Your task to perform on an android device: change keyboard looks Image 0: 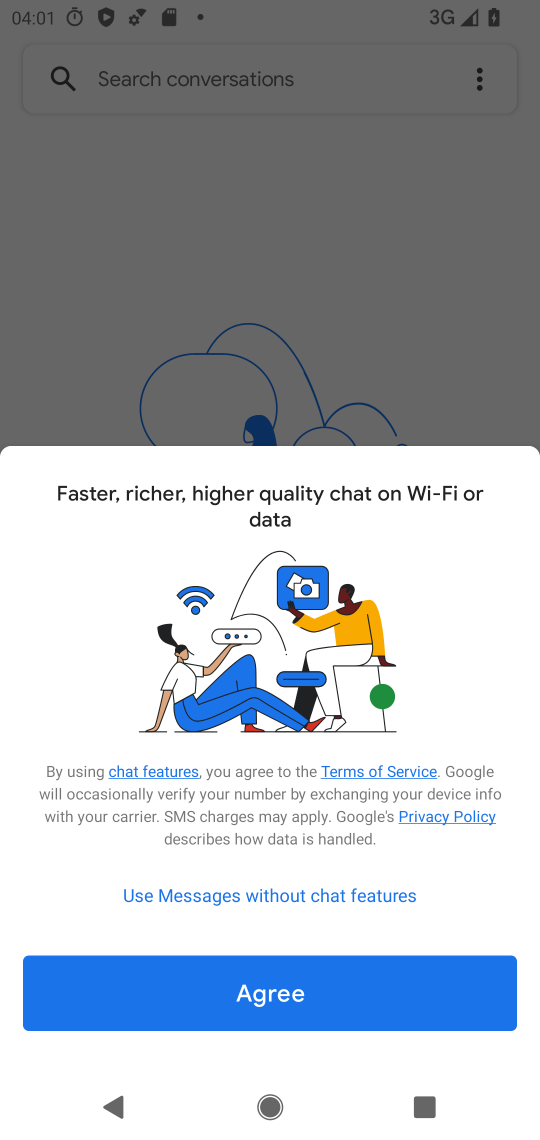
Step 0: press home button
Your task to perform on an android device: change keyboard looks Image 1: 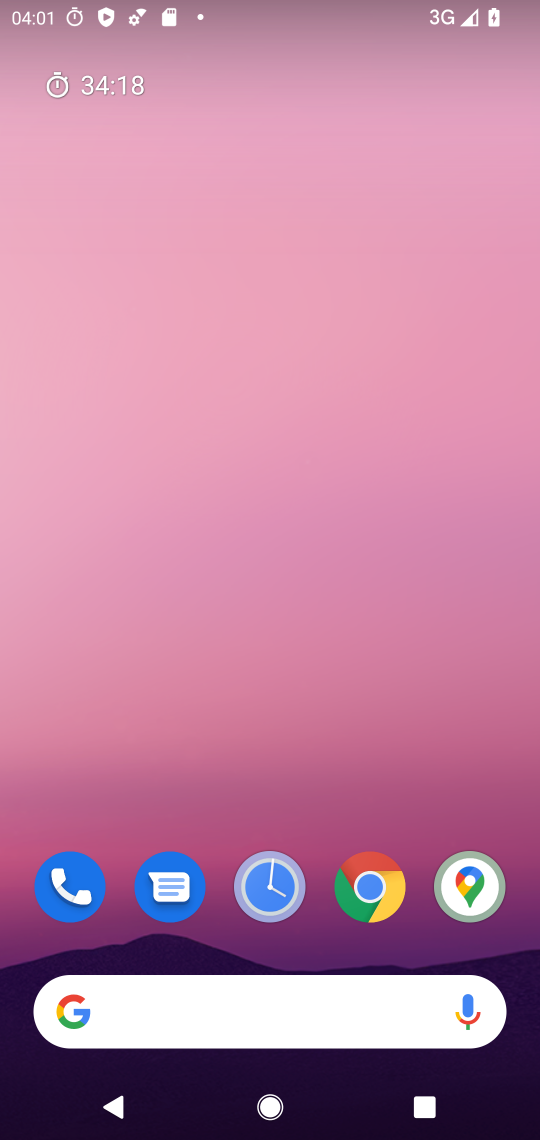
Step 1: drag from (434, 727) to (448, 420)
Your task to perform on an android device: change keyboard looks Image 2: 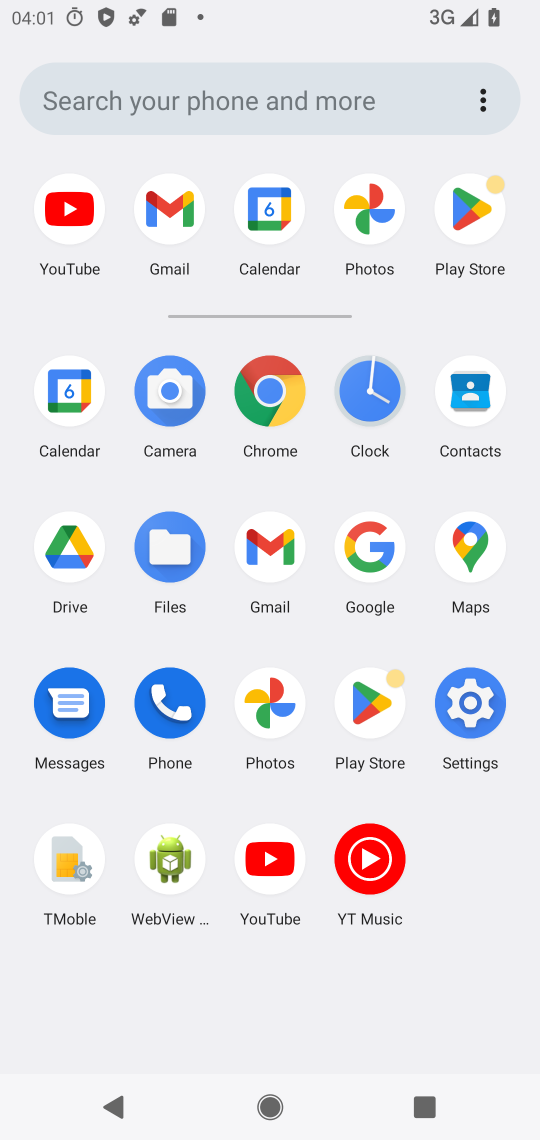
Step 2: click (461, 718)
Your task to perform on an android device: change keyboard looks Image 3: 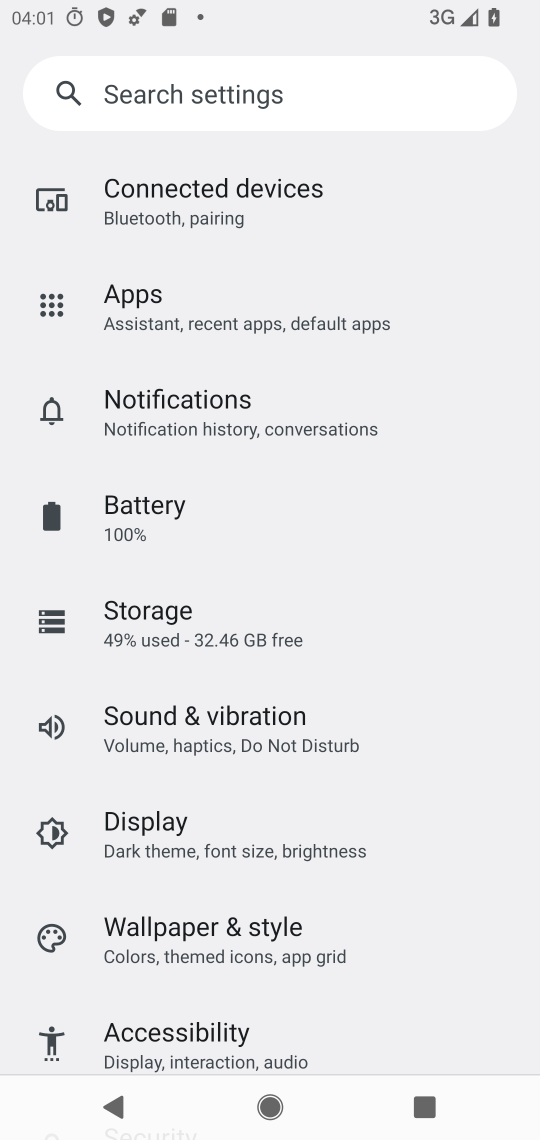
Step 3: drag from (466, 836) to (476, 713)
Your task to perform on an android device: change keyboard looks Image 4: 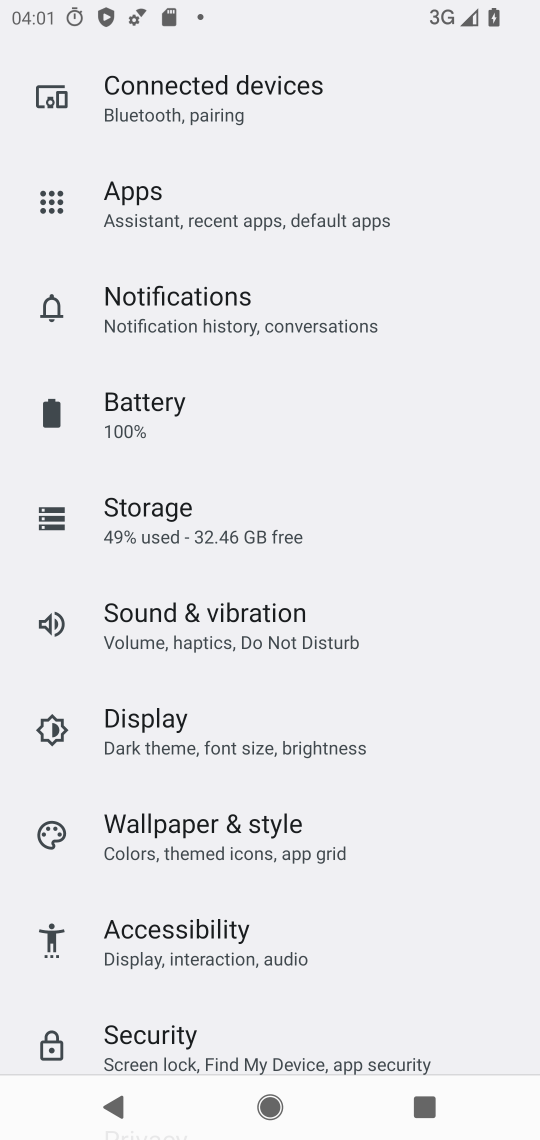
Step 4: drag from (432, 902) to (450, 721)
Your task to perform on an android device: change keyboard looks Image 5: 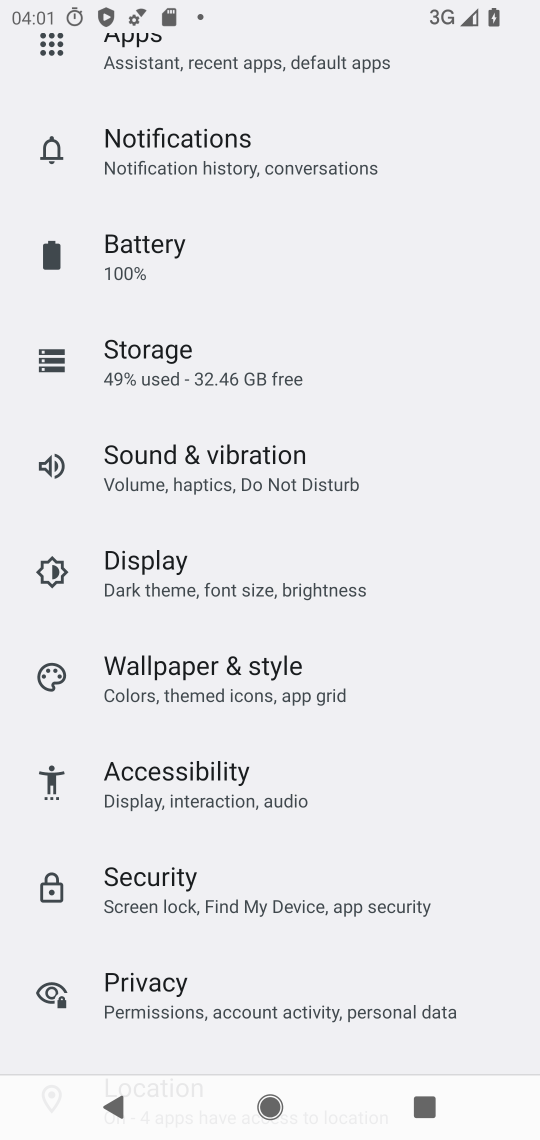
Step 5: drag from (435, 891) to (460, 742)
Your task to perform on an android device: change keyboard looks Image 6: 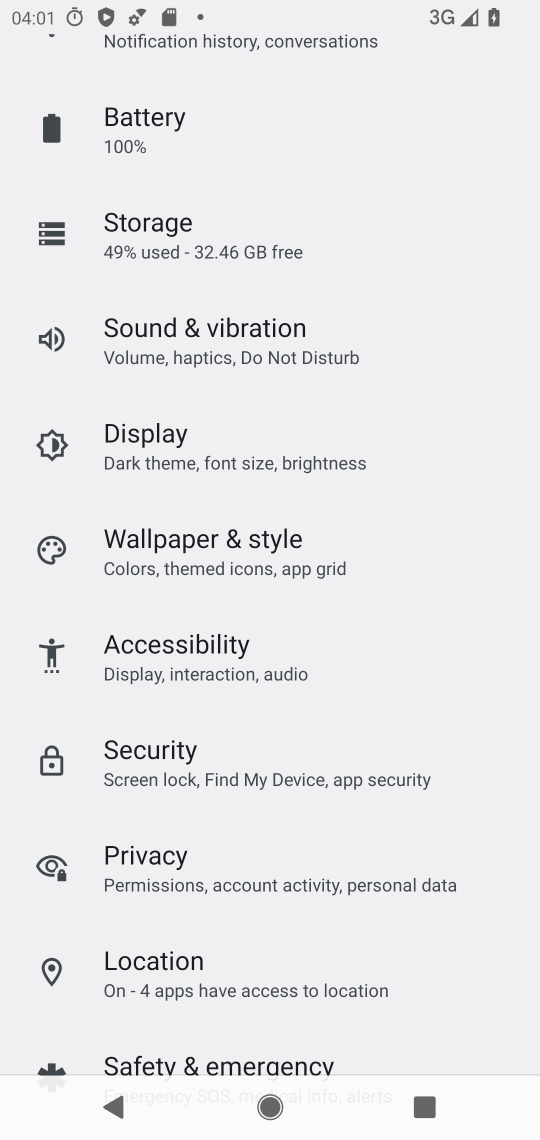
Step 6: drag from (441, 954) to (454, 731)
Your task to perform on an android device: change keyboard looks Image 7: 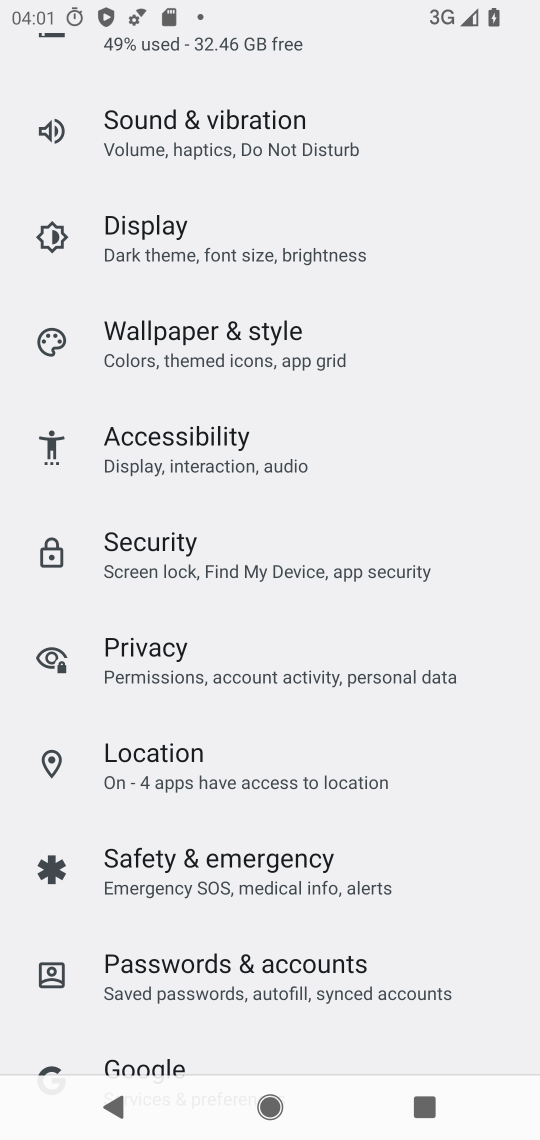
Step 7: drag from (432, 822) to (460, 686)
Your task to perform on an android device: change keyboard looks Image 8: 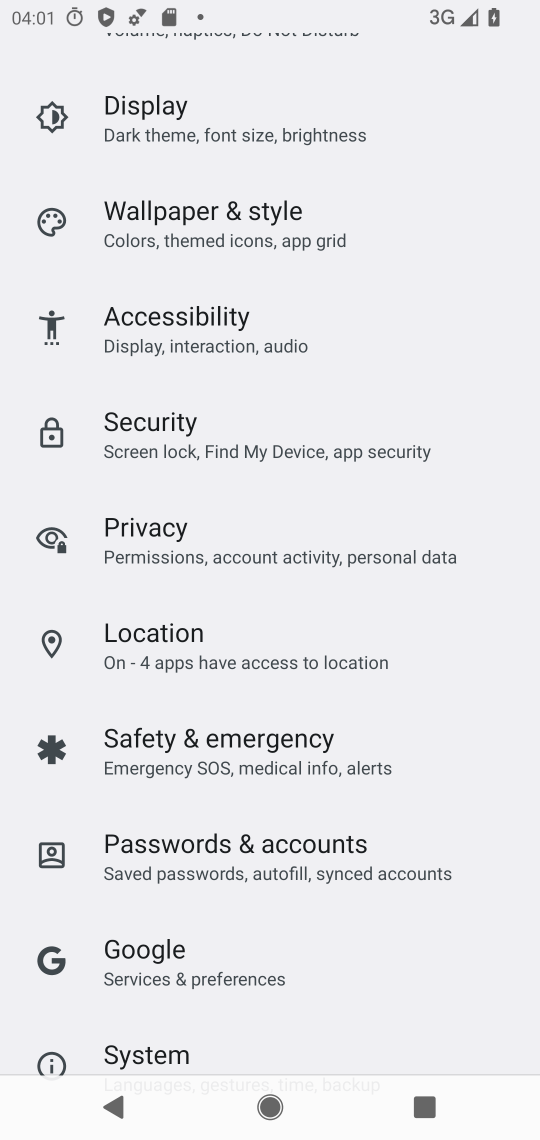
Step 8: drag from (471, 917) to (481, 715)
Your task to perform on an android device: change keyboard looks Image 9: 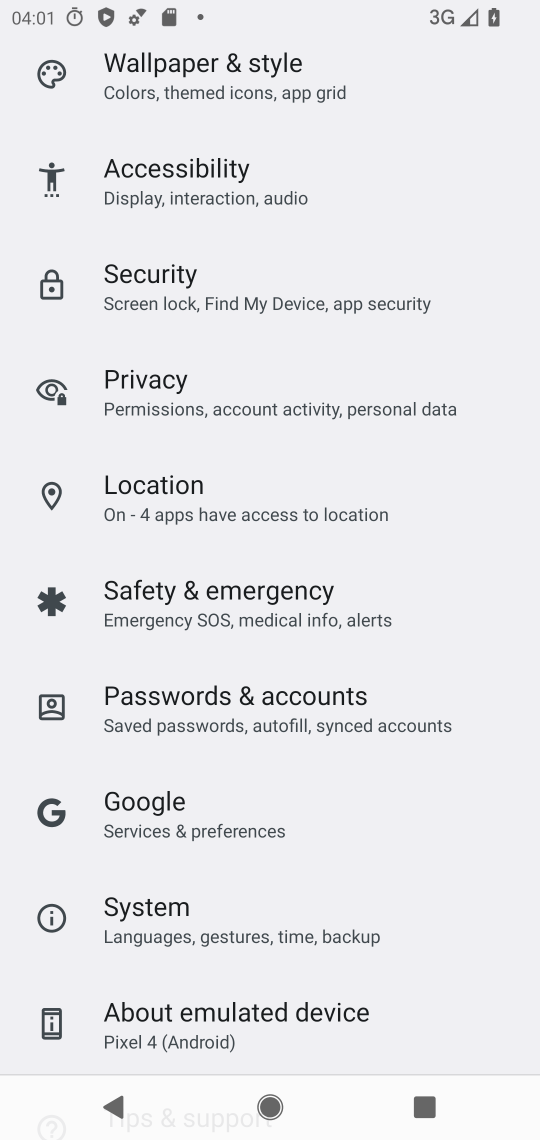
Step 9: drag from (457, 912) to (462, 754)
Your task to perform on an android device: change keyboard looks Image 10: 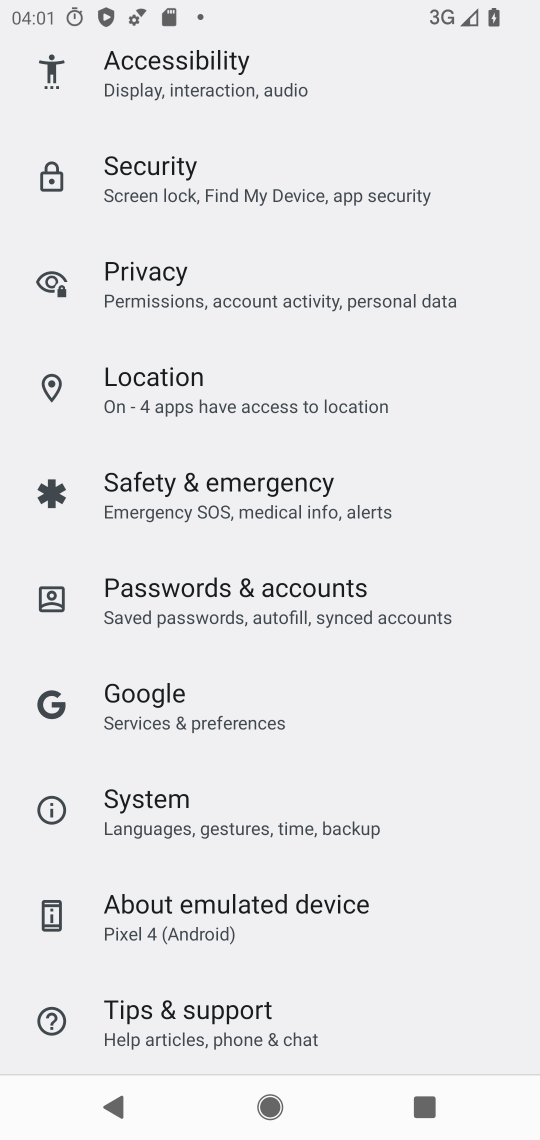
Step 10: click (438, 797)
Your task to perform on an android device: change keyboard looks Image 11: 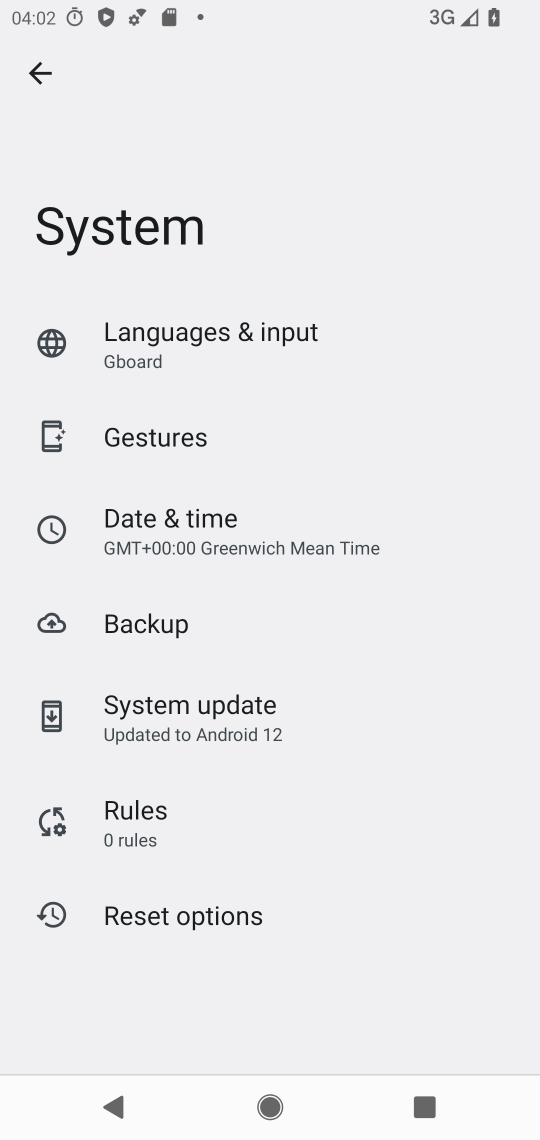
Step 11: click (226, 355)
Your task to perform on an android device: change keyboard looks Image 12: 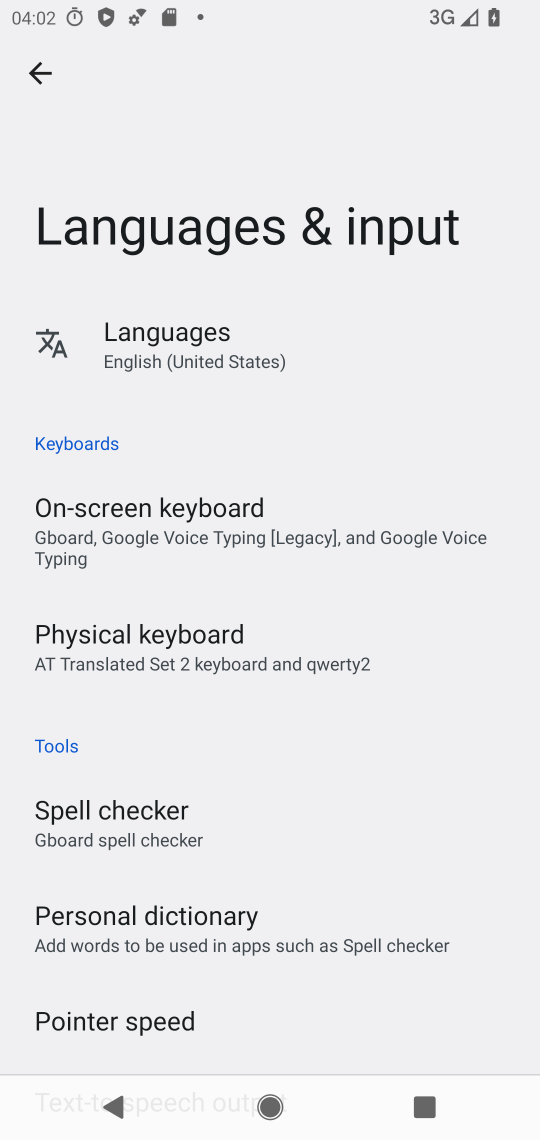
Step 12: click (227, 530)
Your task to perform on an android device: change keyboard looks Image 13: 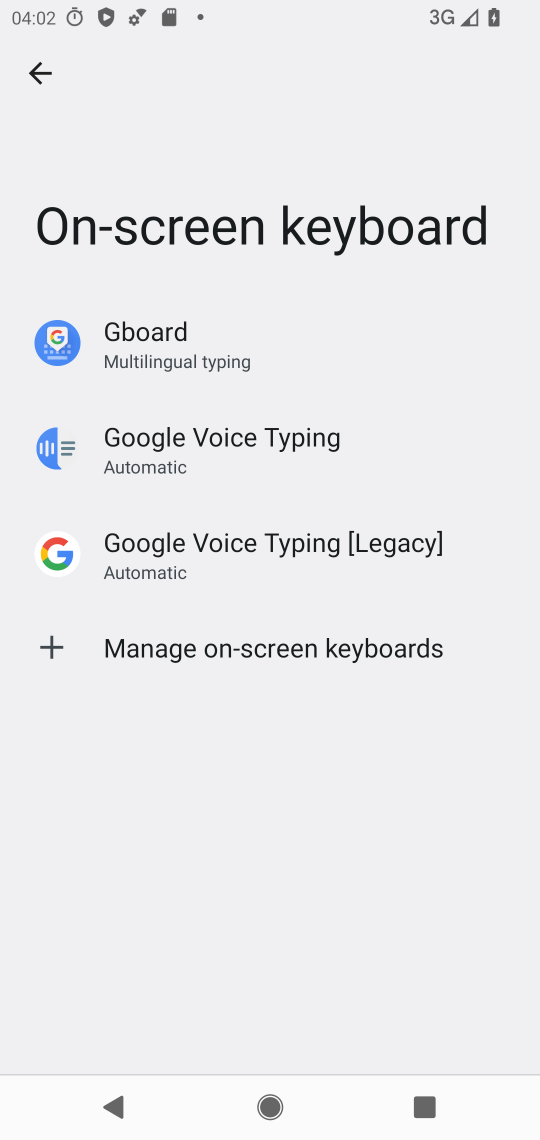
Step 13: click (262, 351)
Your task to perform on an android device: change keyboard looks Image 14: 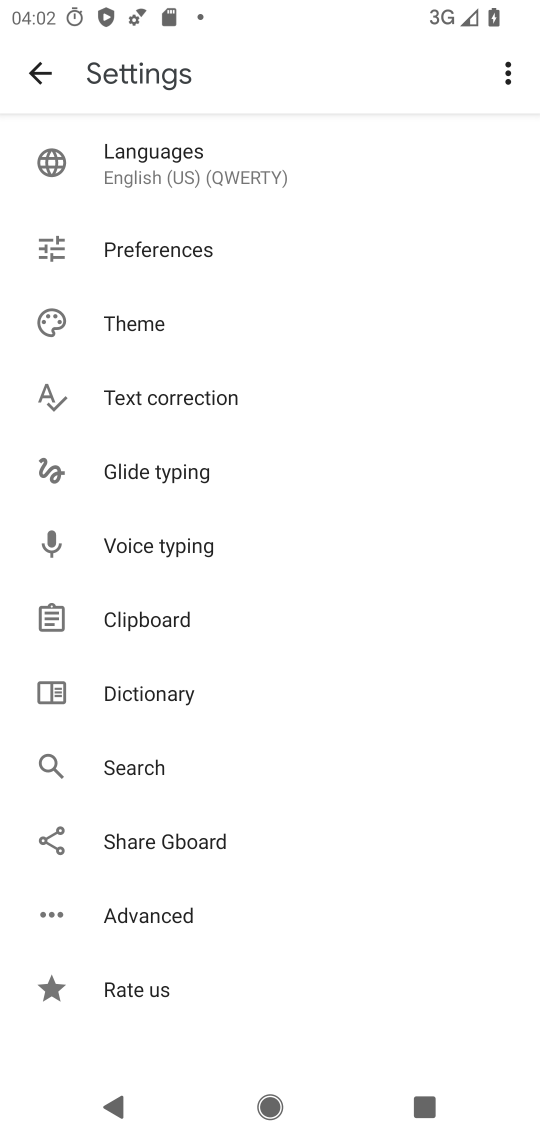
Step 14: drag from (320, 591) to (350, 459)
Your task to perform on an android device: change keyboard looks Image 15: 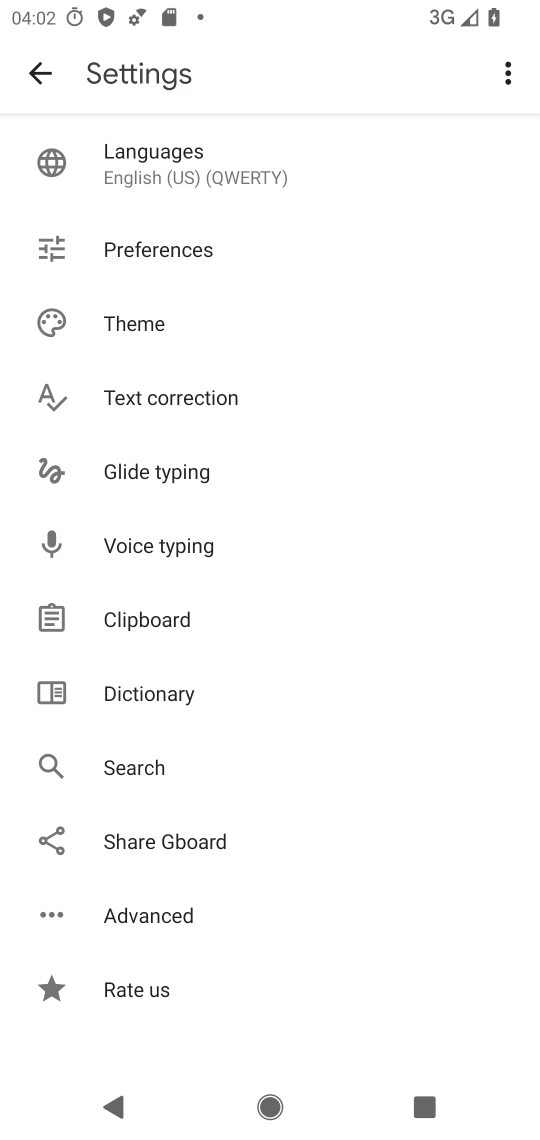
Step 15: click (228, 316)
Your task to perform on an android device: change keyboard looks Image 16: 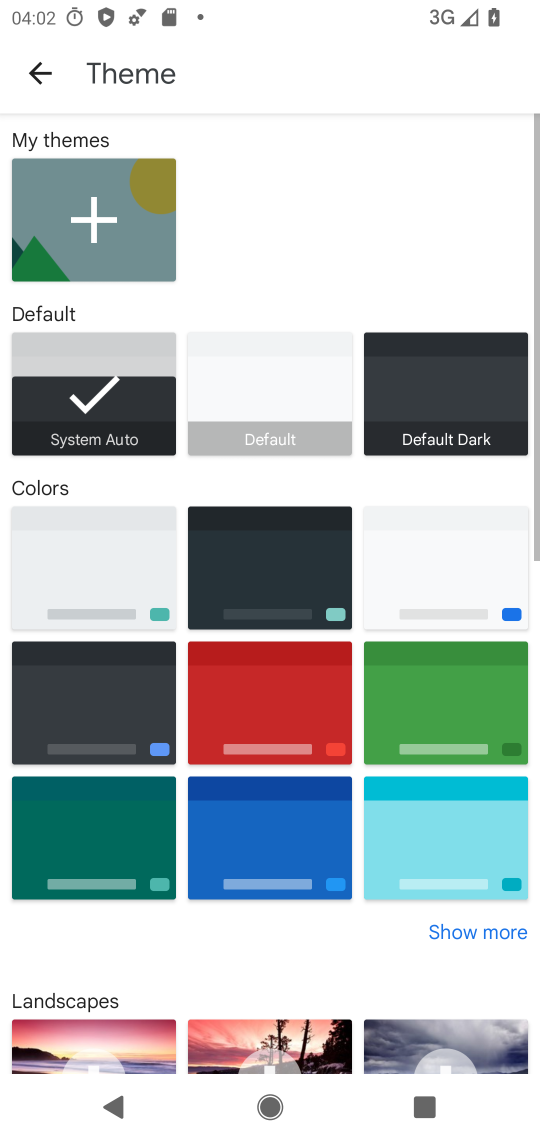
Step 16: click (297, 707)
Your task to perform on an android device: change keyboard looks Image 17: 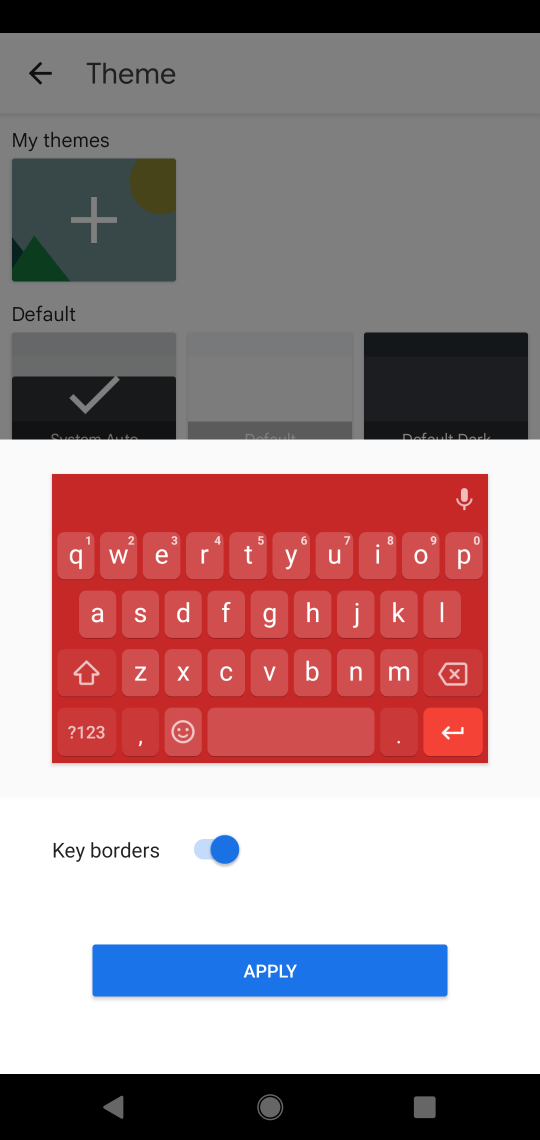
Step 17: click (323, 992)
Your task to perform on an android device: change keyboard looks Image 18: 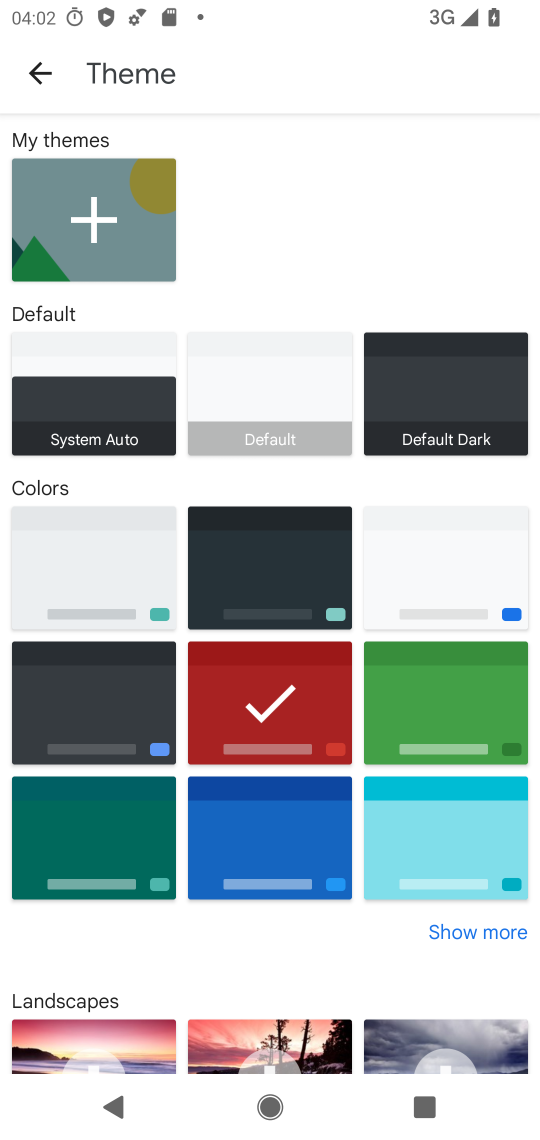
Step 18: task complete